Your task to perform on an android device: change the clock style Image 0: 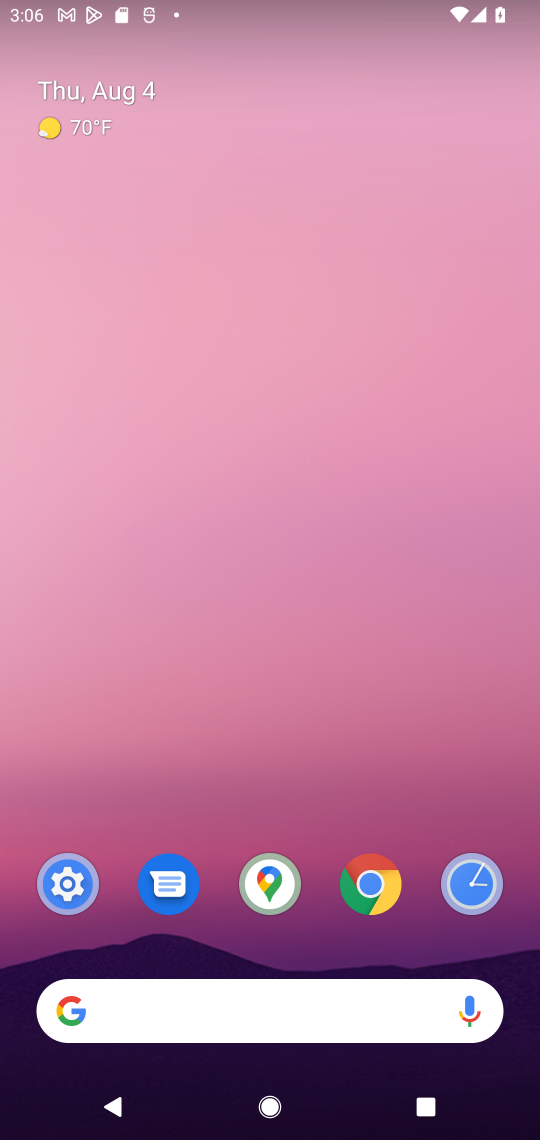
Step 0: click (474, 874)
Your task to perform on an android device: change the clock style Image 1: 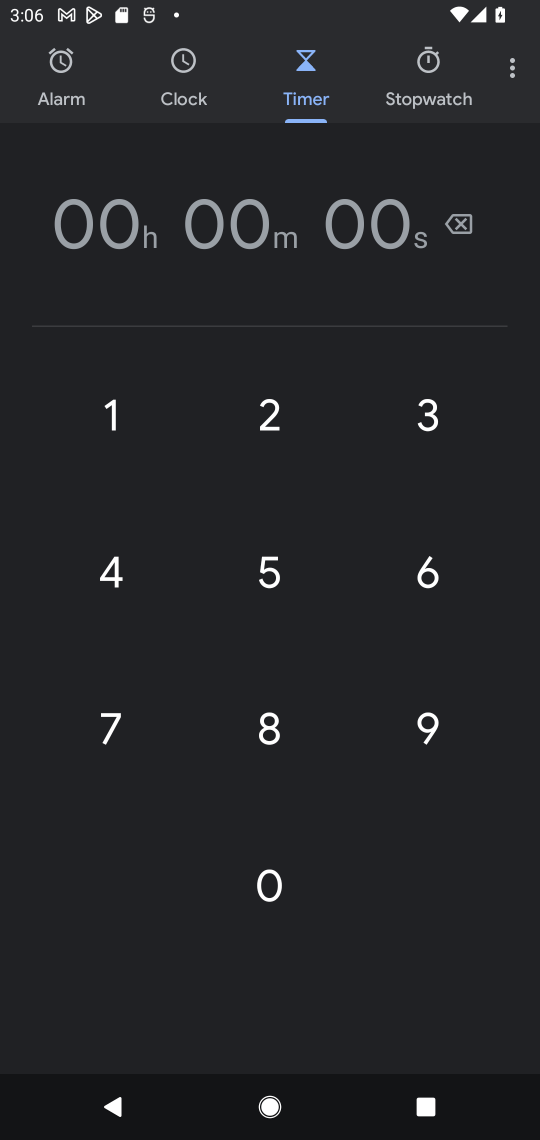
Step 1: task complete